Your task to perform on an android device: open app "Fetch Rewards" Image 0: 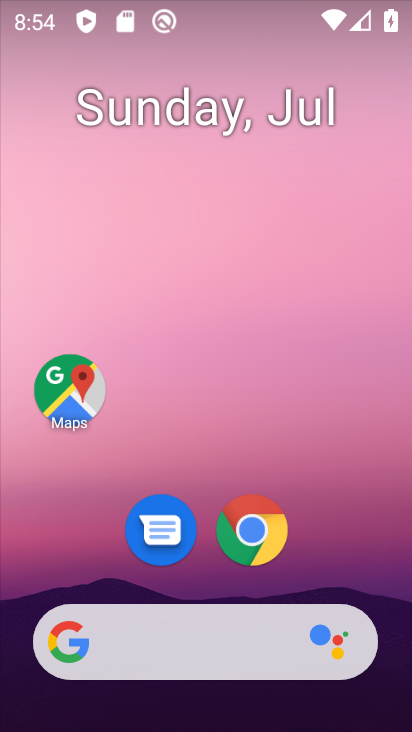
Step 0: drag from (189, 414) to (190, 56)
Your task to perform on an android device: open app "Fetch Rewards" Image 1: 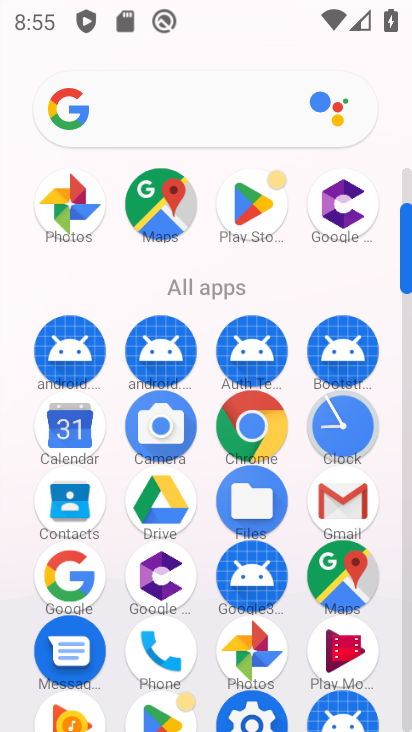
Step 1: click (250, 226)
Your task to perform on an android device: open app "Fetch Rewards" Image 2: 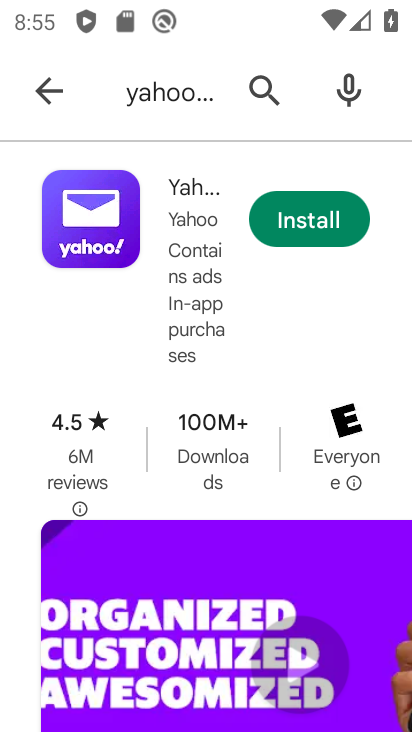
Step 2: click (272, 95)
Your task to perform on an android device: open app "Fetch Rewards" Image 3: 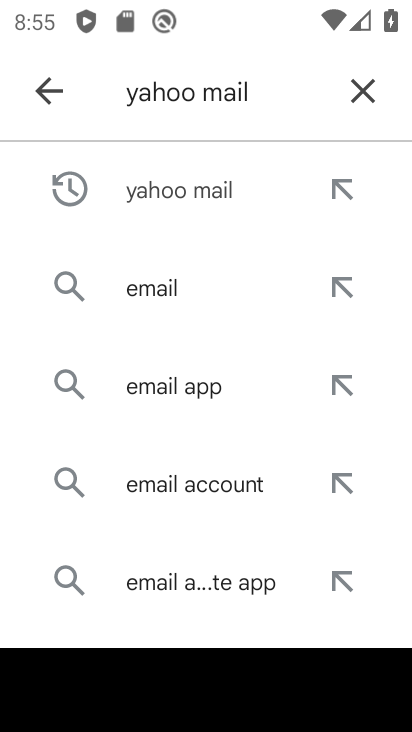
Step 3: click (374, 92)
Your task to perform on an android device: open app "Fetch Rewards" Image 4: 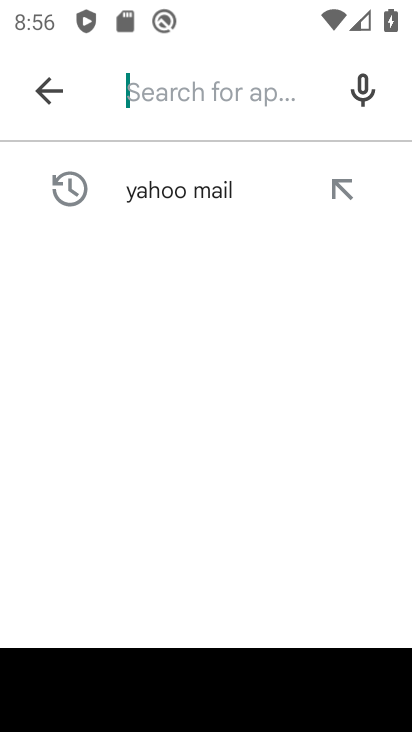
Step 4: type "fetch rewards"
Your task to perform on an android device: open app "Fetch Rewards" Image 5: 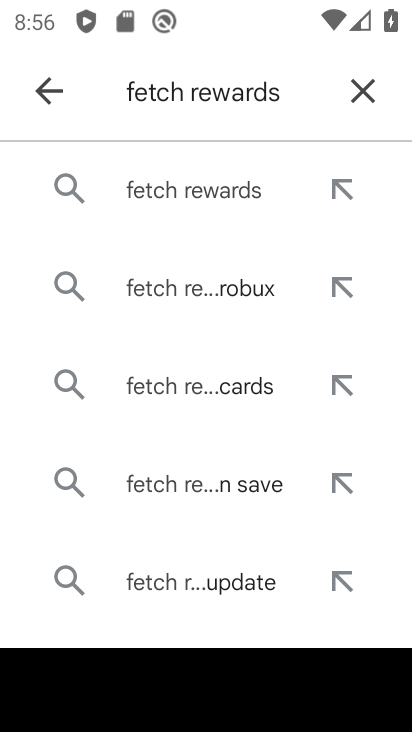
Step 5: click (249, 200)
Your task to perform on an android device: open app "Fetch Rewards" Image 6: 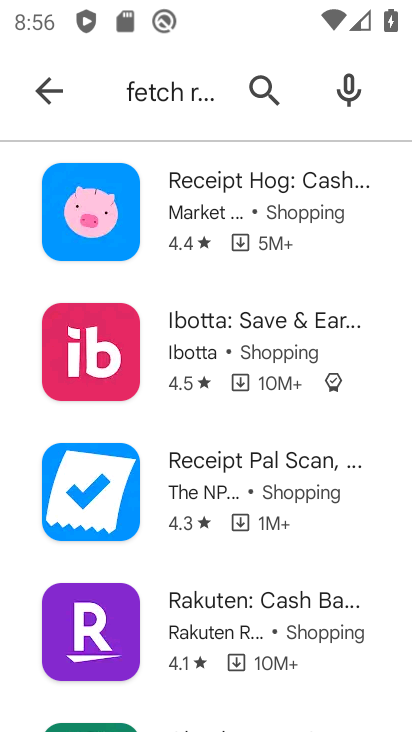
Step 6: task complete